Your task to perform on an android device: Go to privacy settings Image 0: 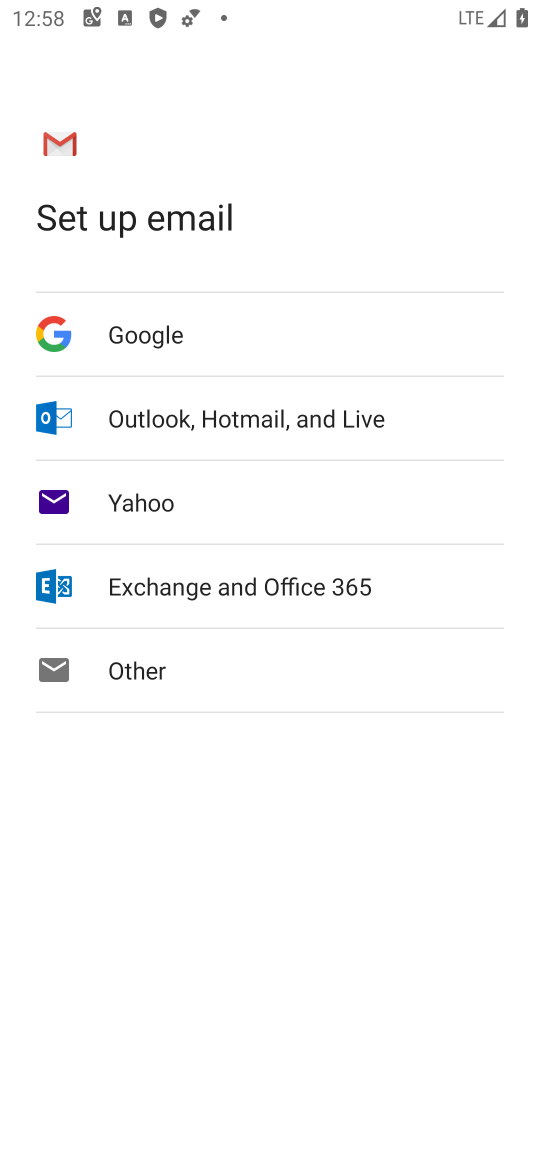
Step 0: press home button
Your task to perform on an android device: Go to privacy settings Image 1: 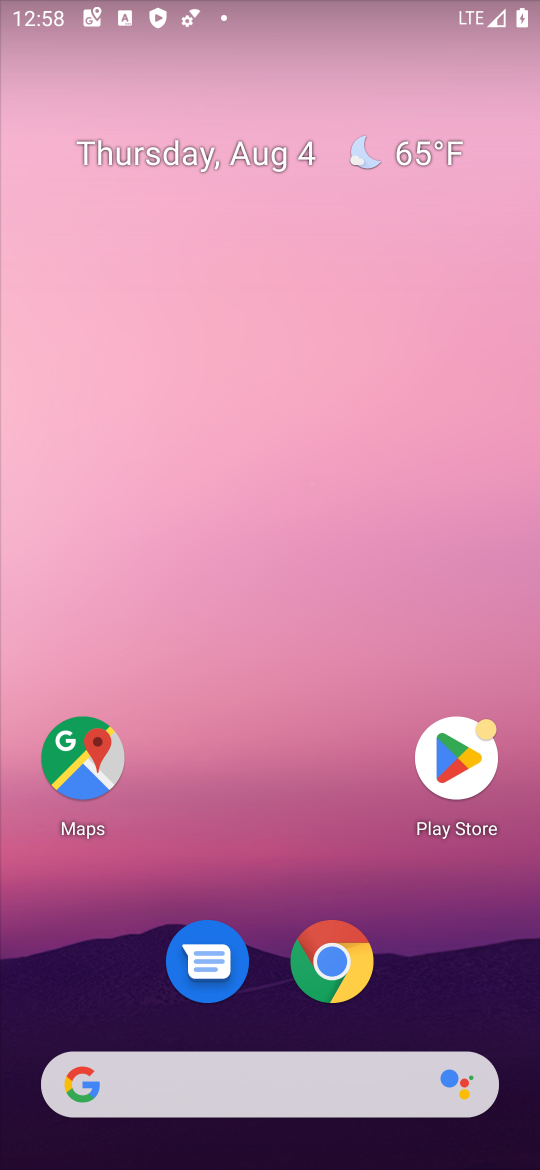
Step 1: drag from (312, 667) to (448, 0)
Your task to perform on an android device: Go to privacy settings Image 2: 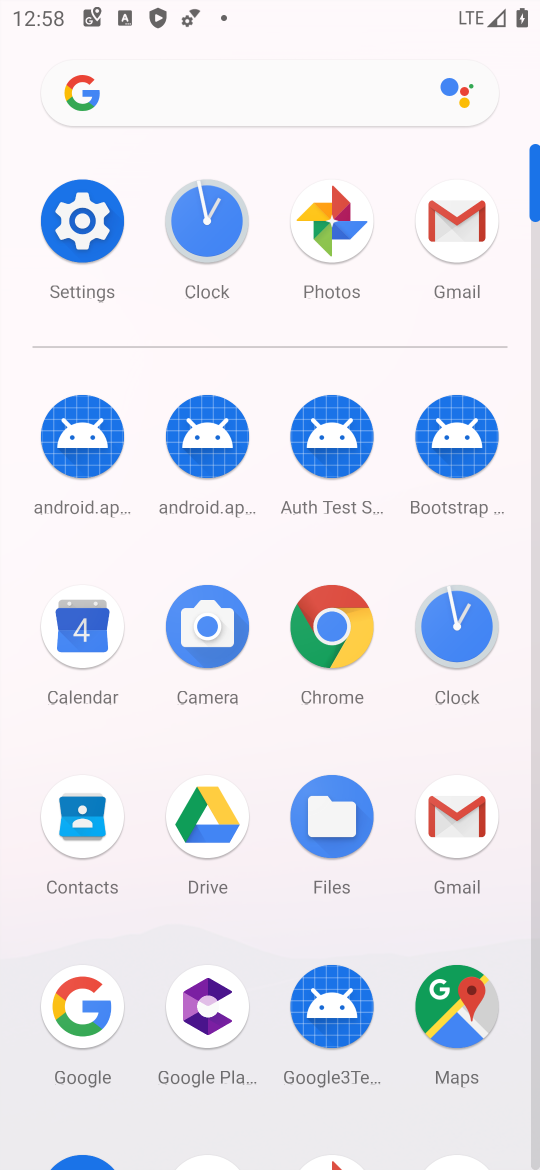
Step 2: click (96, 215)
Your task to perform on an android device: Go to privacy settings Image 3: 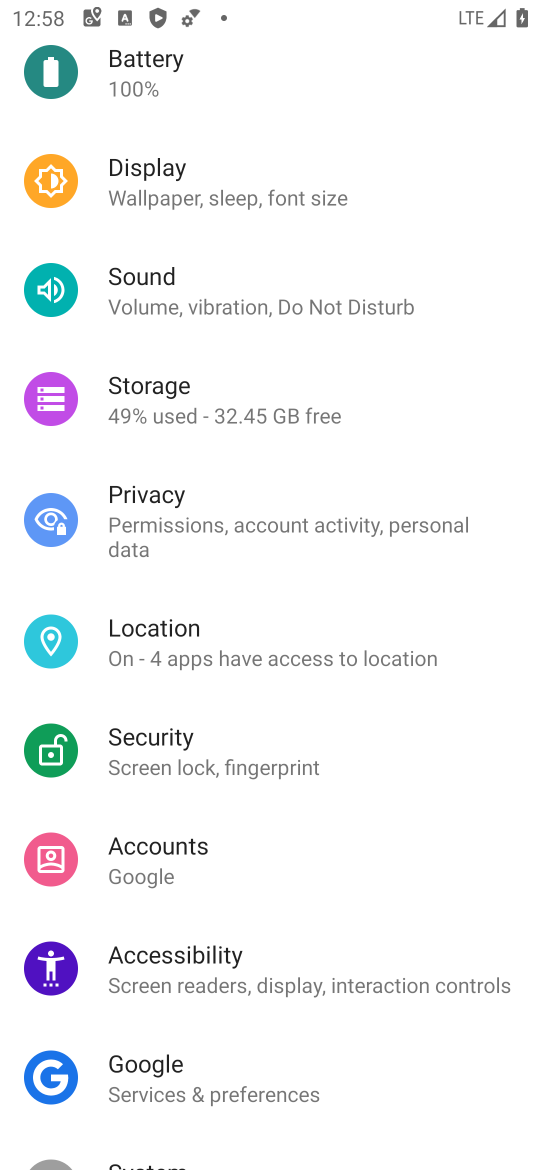
Step 3: click (214, 500)
Your task to perform on an android device: Go to privacy settings Image 4: 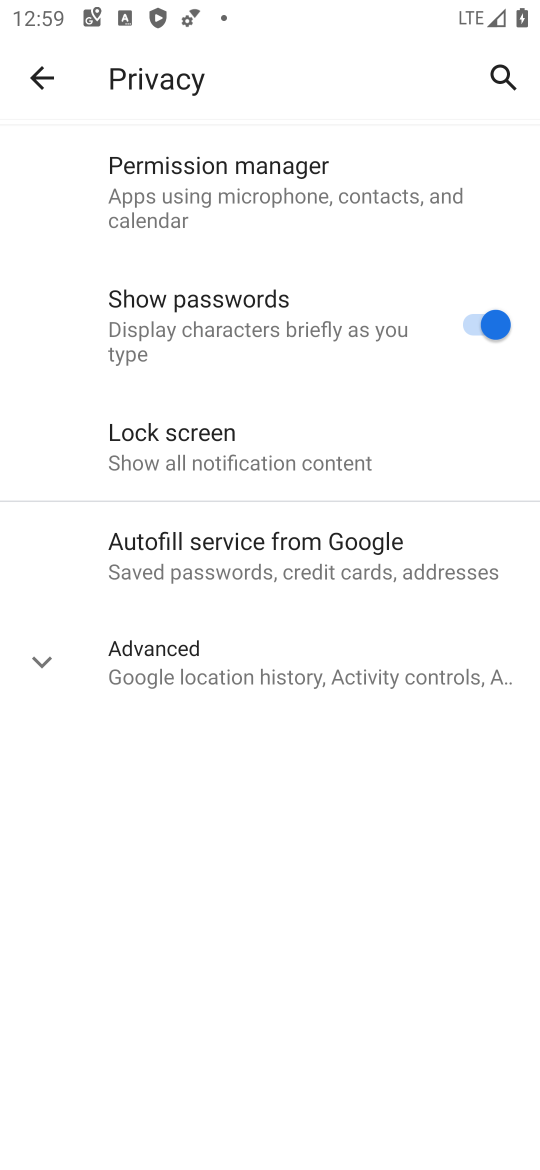
Step 4: task complete